Your task to perform on an android device: Open Google Chrome and click the shortcut for Amazon.com Image 0: 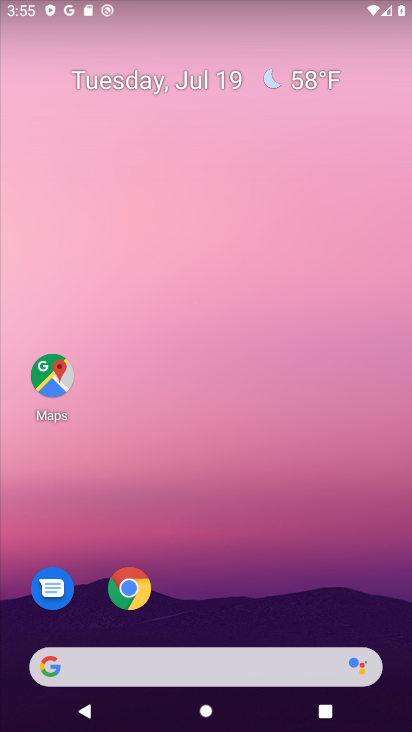
Step 0: drag from (282, 614) to (329, 157)
Your task to perform on an android device: Open Google Chrome and click the shortcut for Amazon.com Image 1: 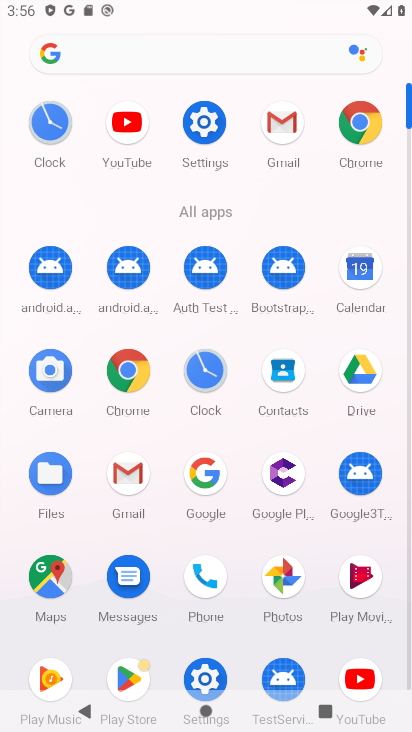
Step 1: click (130, 380)
Your task to perform on an android device: Open Google Chrome and click the shortcut for Amazon.com Image 2: 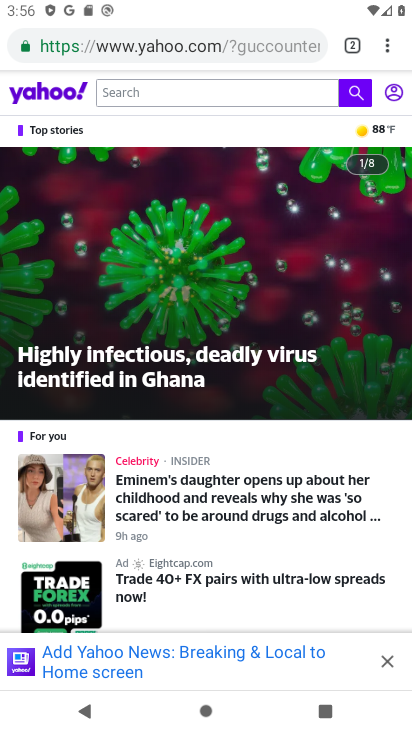
Step 2: drag from (401, 50) to (378, 89)
Your task to perform on an android device: Open Google Chrome and click the shortcut for Amazon.com Image 3: 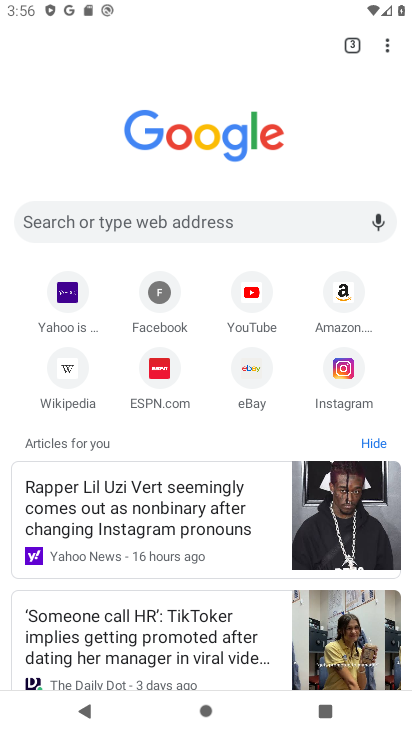
Step 3: click (342, 282)
Your task to perform on an android device: Open Google Chrome and click the shortcut for Amazon.com Image 4: 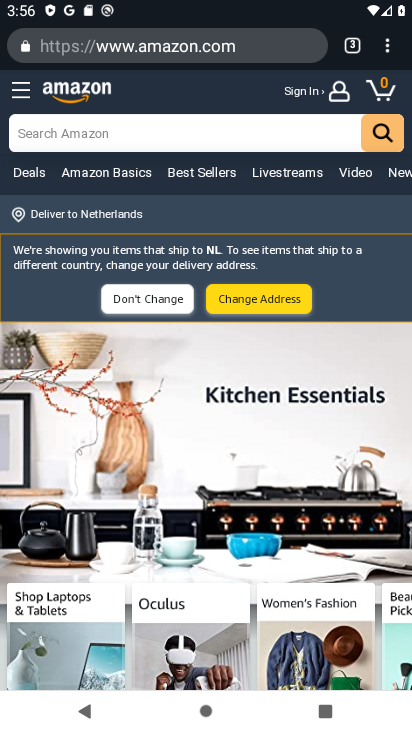
Step 4: task complete